Your task to perform on an android device: search for starred emails in the gmail app Image 0: 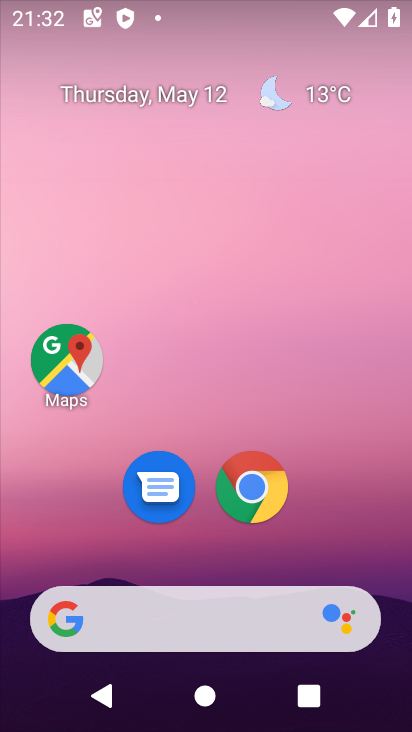
Step 0: drag from (221, 552) to (251, 193)
Your task to perform on an android device: search for starred emails in the gmail app Image 1: 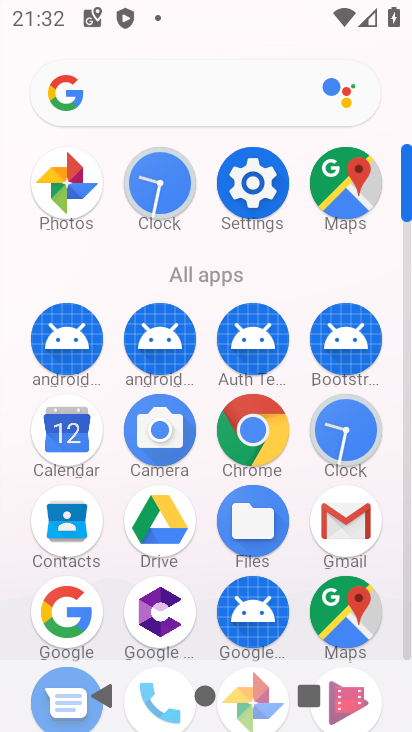
Step 1: click (376, 512)
Your task to perform on an android device: search for starred emails in the gmail app Image 2: 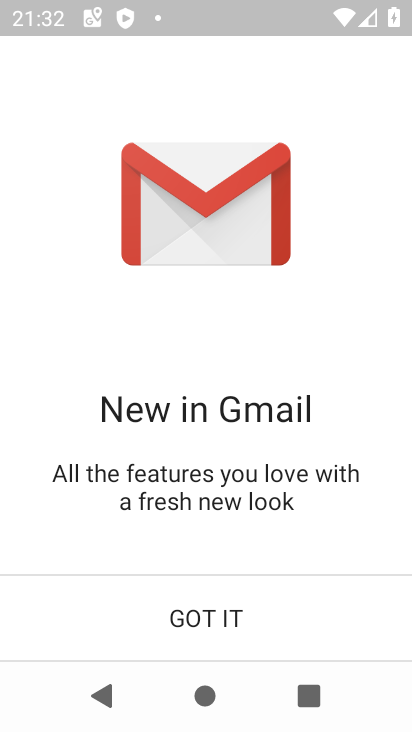
Step 2: click (186, 639)
Your task to perform on an android device: search for starred emails in the gmail app Image 3: 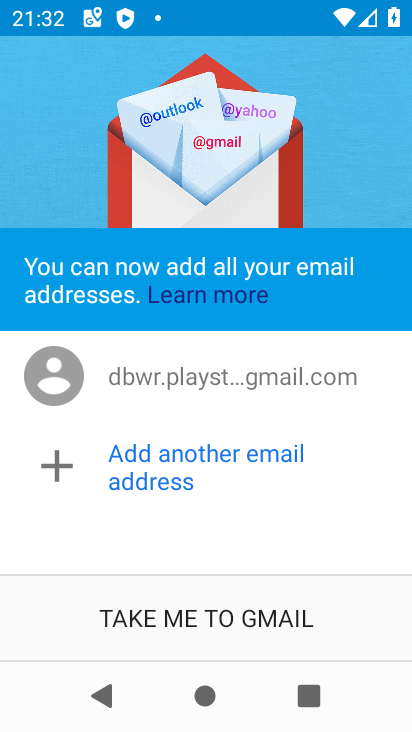
Step 3: click (186, 639)
Your task to perform on an android device: search for starred emails in the gmail app Image 4: 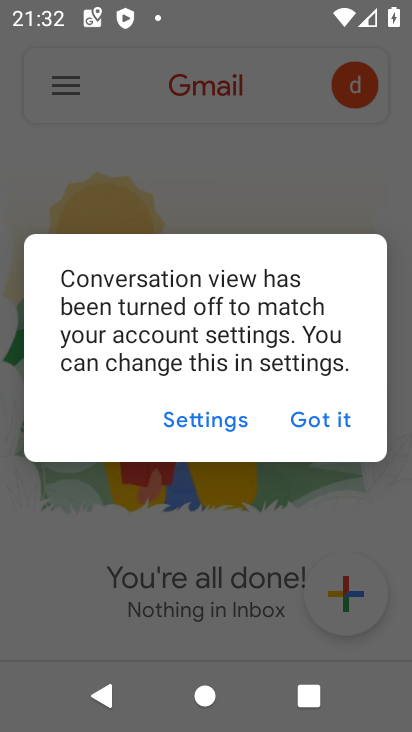
Step 4: click (319, 421)
Your task to perform on an android device: search for starred emails in the gmail app Image 5: 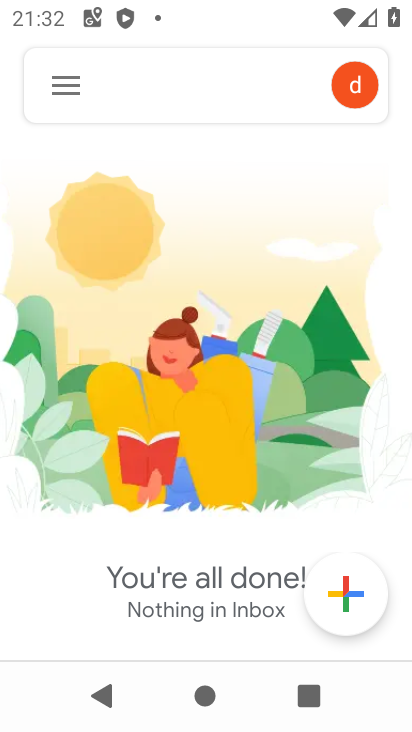
Step 5: click (54, 91)
Your task to perform on an android device: search for starred emails in the gmail app Image 6: 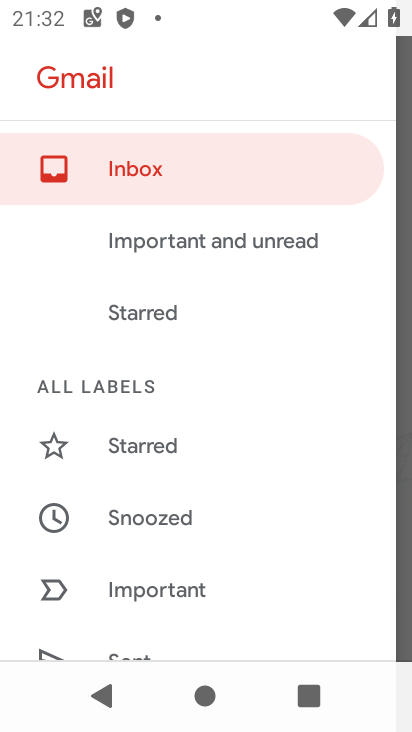
Step 6: click (145, 472)
Your task to perform on an android device: search for starred emails in the gmail app Image 7: 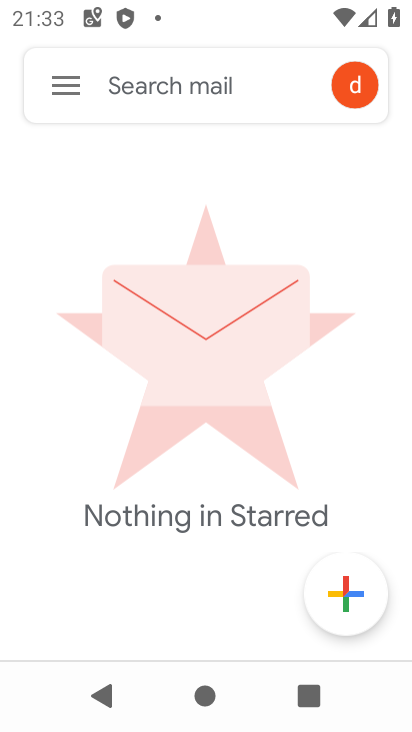
Step 7: task complete